Your task to perform on an android device: add a contact in the contacts app Image 0: 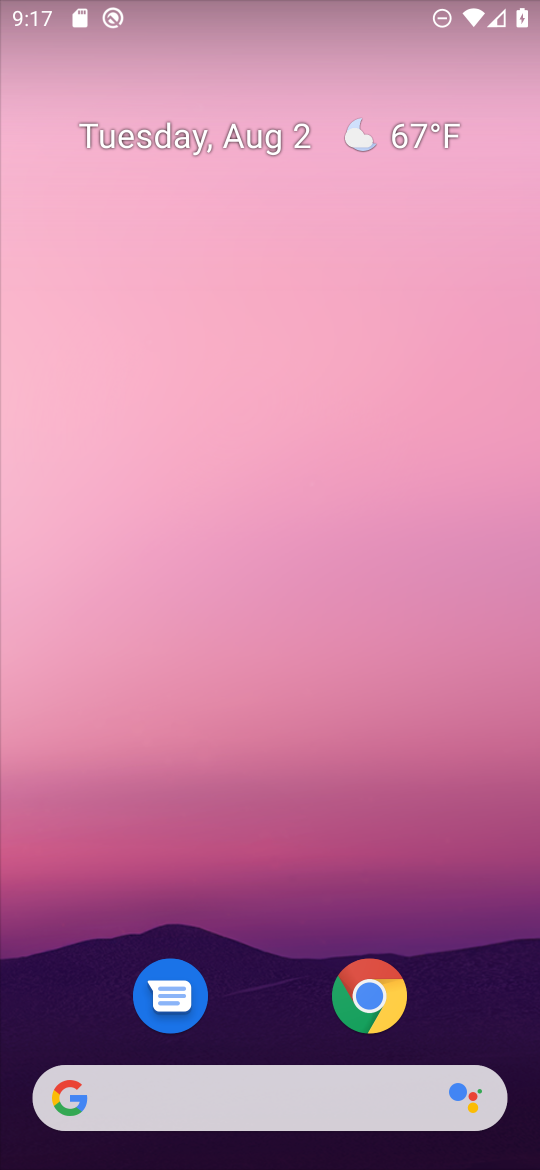
Step 0: drag from (283, 1012) to (284, 202)
Your task to perform on an android device: add a contact in the contacts app Image 1: 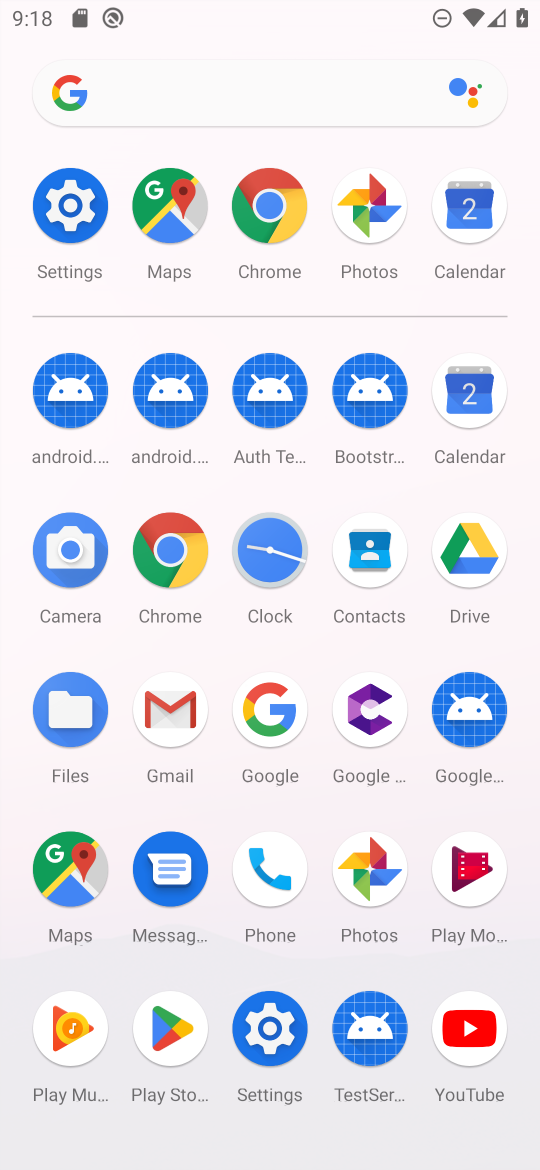
Step 1: click (370, 548)
Your task to perform on an android device: add a contact in the contacts app Image 2: 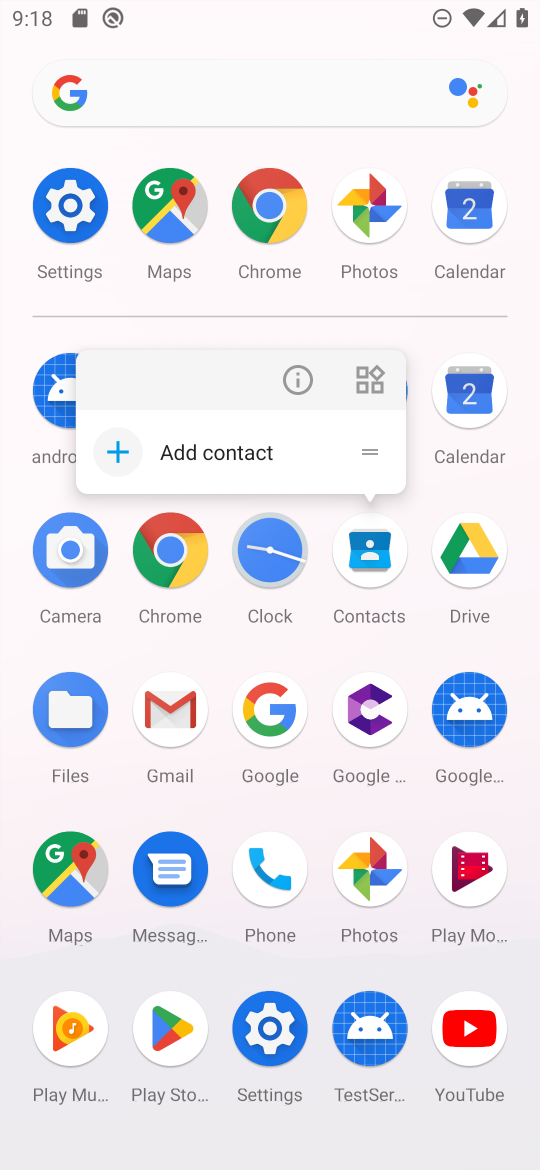
Step 2: click (370, 548)
Your task to perform on an android device: add a contact in the contacts app Image 3: 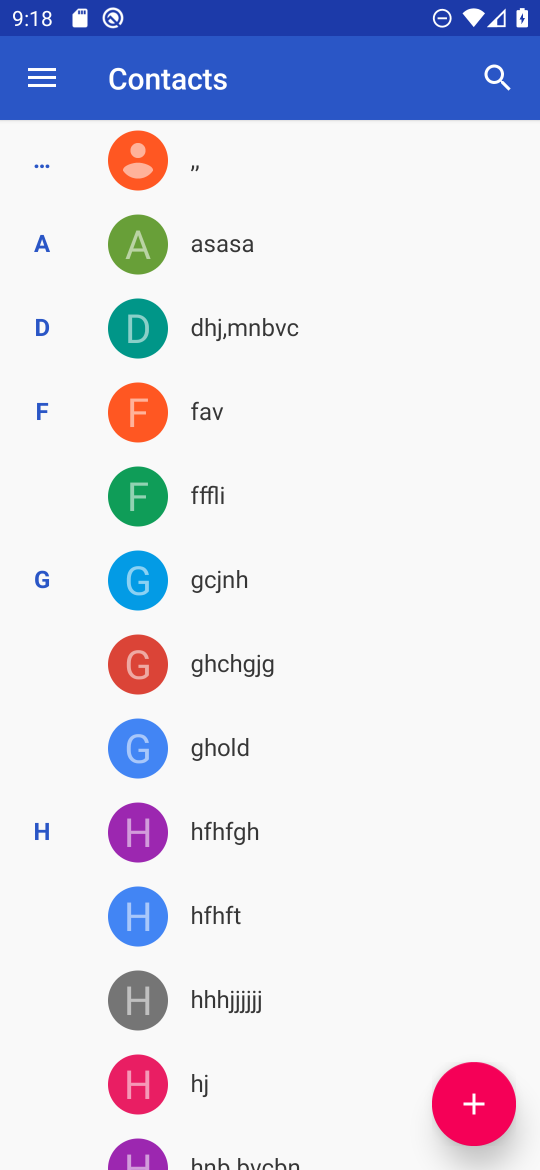
Step 3: drag from (295, 1008) to (346, 279)
Your task to perform on an android device: add a contact in the contacts app Image 4: 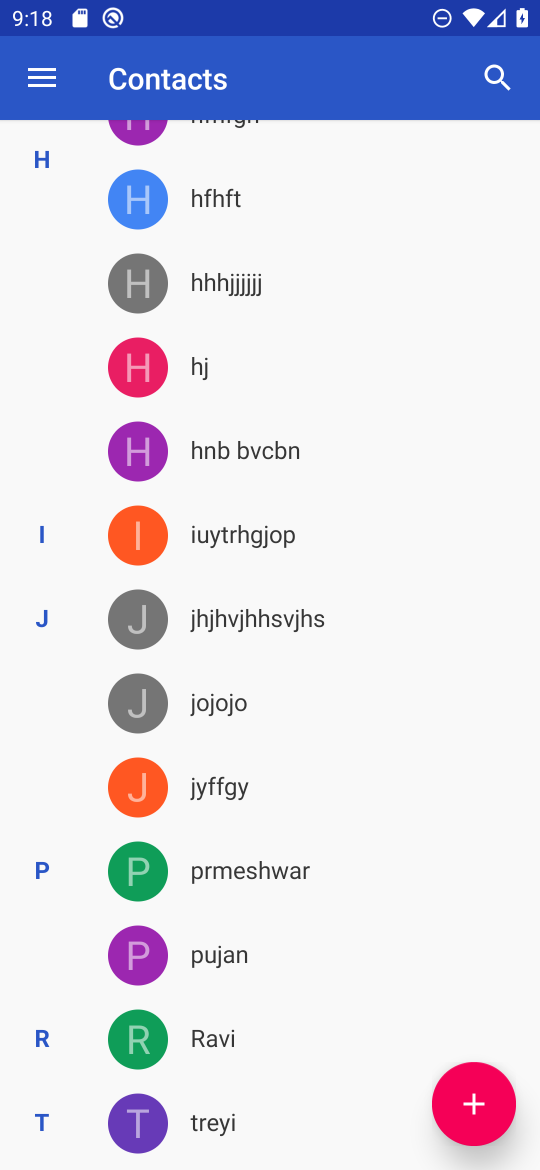
Step 4: click (477, 1085)
Your task to perform on an android device: add a contact in the contacts app Image 5: 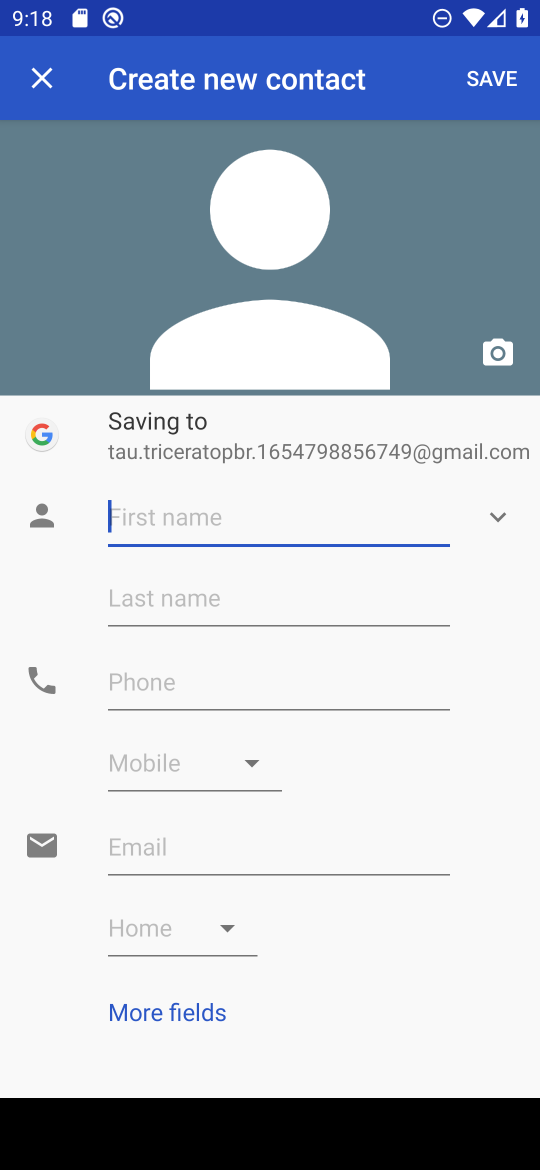
Step 5: type "ffper"
Your task to perform on an android device: add a contact in the contacts app Image 6: 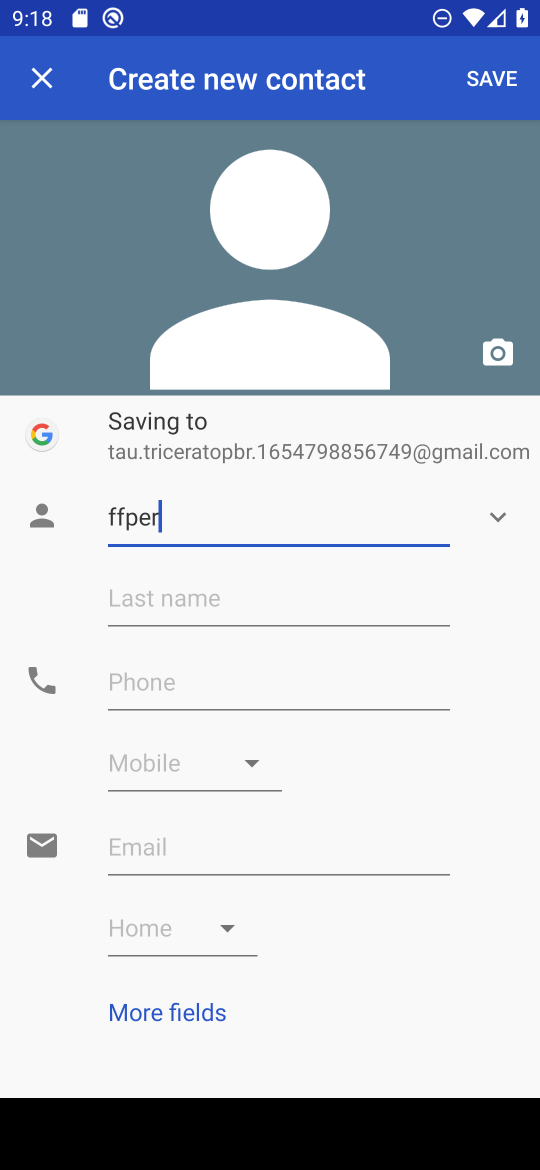
Step 6: click (153, 669)
Your task to perform on an android device: add a contact in the contacts app Image 7: 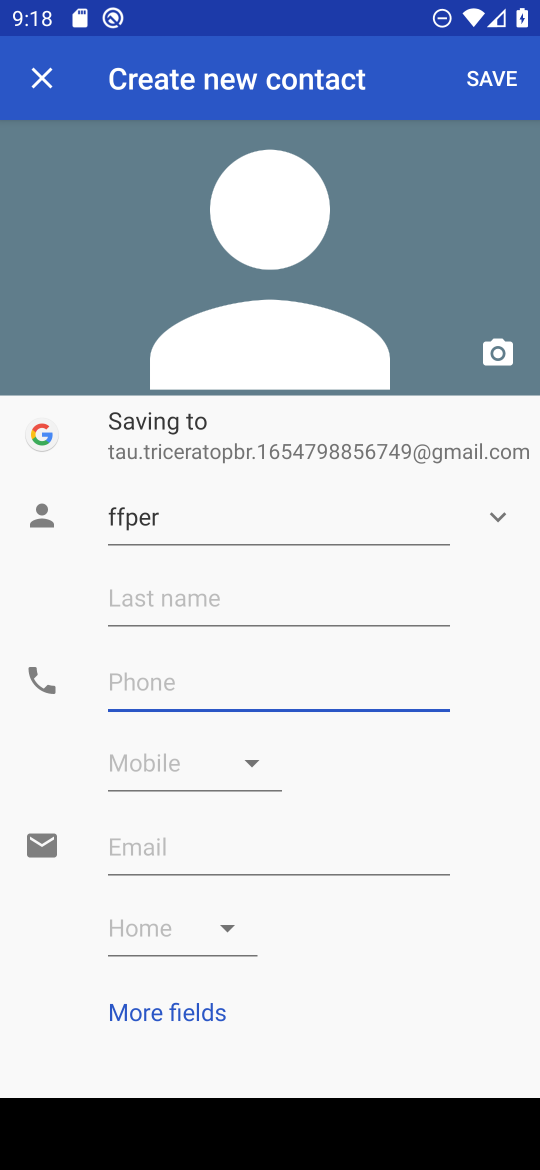
Step 7: type "981234"
Your task to perform on an android device: add a contact in the contacts app Image 8: 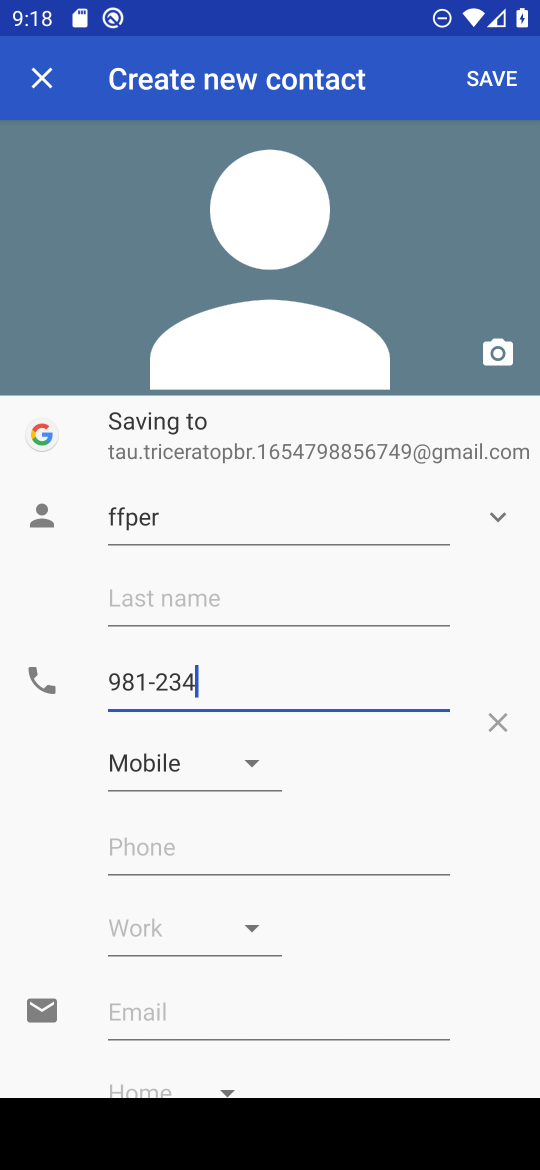
Step 8: click (492, 71)
Your task to perform on an android device: add a contact in the contacts app Image 9: 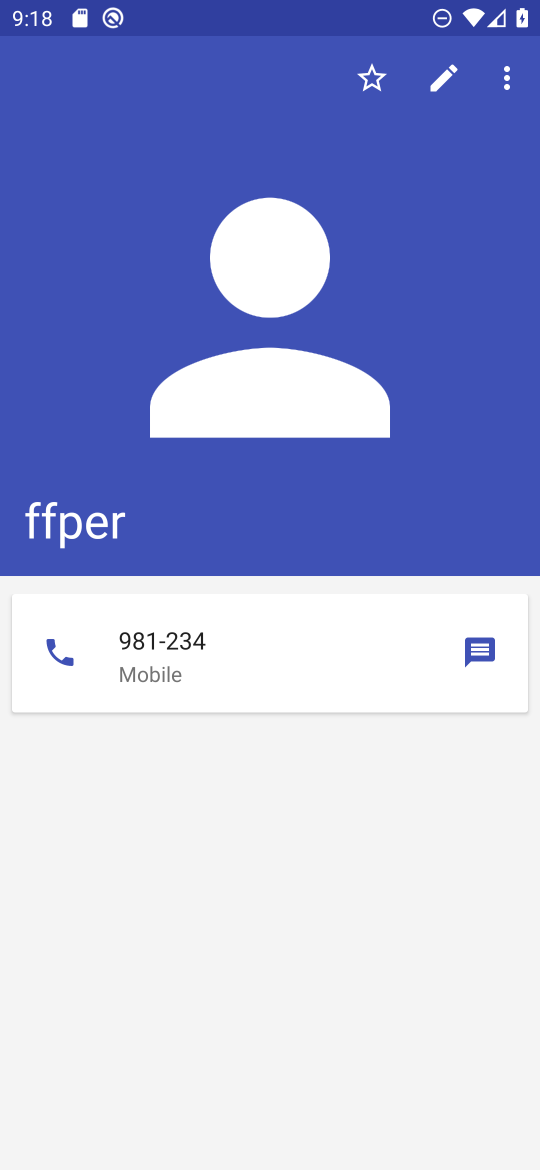
Step 9: task complete